Your task to perform on an android device: open app "PUBG MOBILE" (install if not already installed) and enter user name: "phenomenologically@gmail.com" and password: "artillery" Image 0: 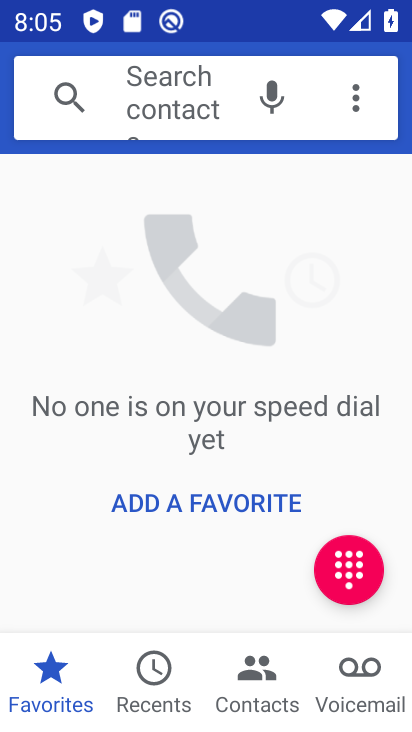
Step 0: press home button
Your task to perform on an android device: open app "PUBG MOBILE" (install if not already installed) and enter user name: "phenomenologically@gmail.com" and password: "artillery" Image 1: 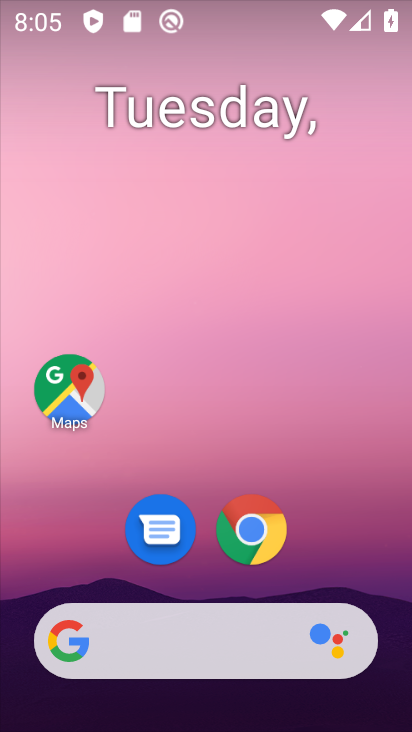
Step 1: drag from (181, 384) to (191, 18)
Your task to perform on an android device: open app "PUBG MOBILE" (install if not already installed) and enter user name: "phenomenologically@gmail.com" and password: "artillery" Image 2: 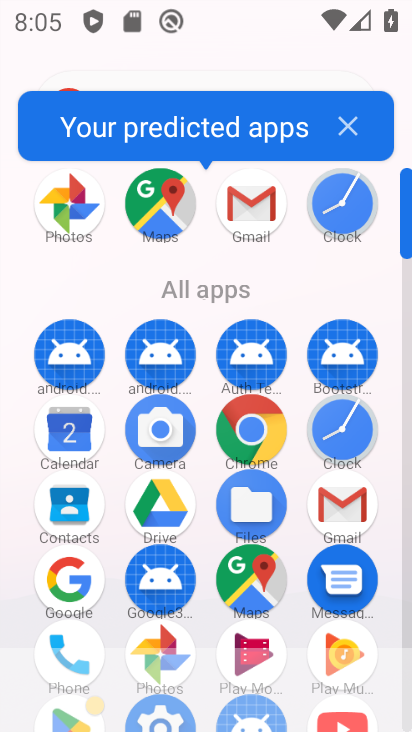
Step 2: drag from (114, 523) to (129, 288)
Your task to perform on an android device: open app "PUBG MOBILE" (install if not already installed) and enter user name: "phenomenologically@gmail.com" and password: "artillery" Image 3: 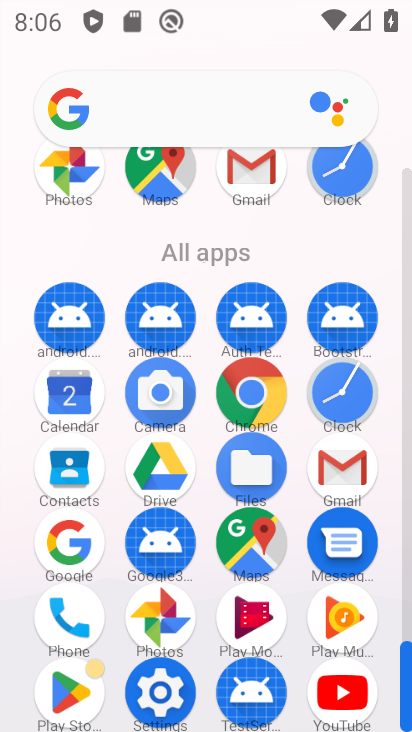
Step 3: click (73, 671)
Your task to perform on an android device: open app "PUBG MOBILE" (install if not already installed) and enter user name: "phenomenologically@gmail.com" and password: "artillery" Image 4: 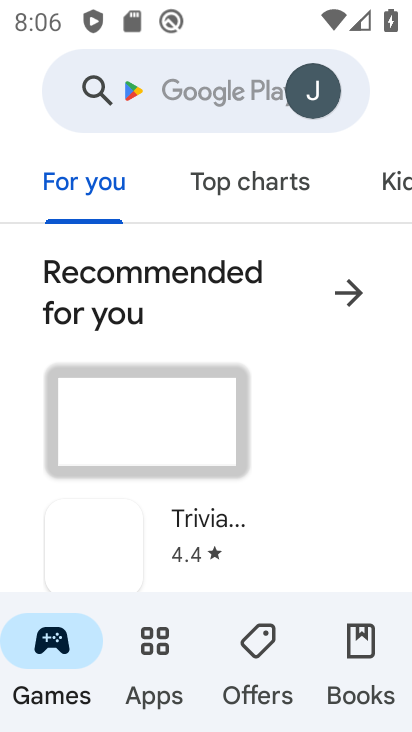
Step 4: click (85, 86)
Your task to perform on an android device: open app "PUBG MOBILE" (install if not already installed) and enter user name: "phenomenologically@gmail.com" and password: "artillery" Image 5: 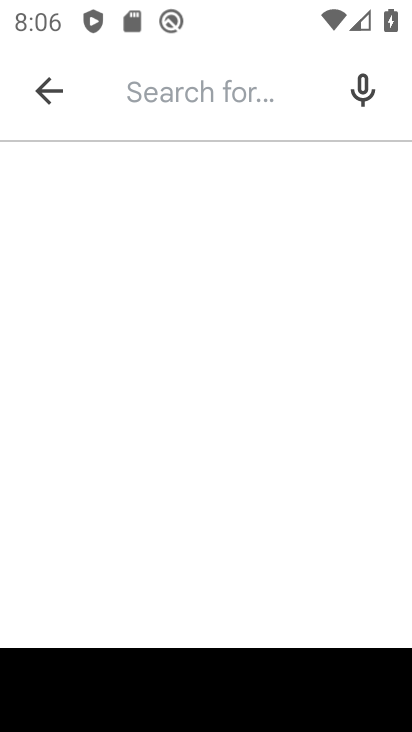
Step 5: type "pubg"
Your task to perform on an android device: open app "PUBG MOBILE" (install if not already installed) and enter user name: "phenomenologically@gmail.com" and password: "artillery" Image 6: 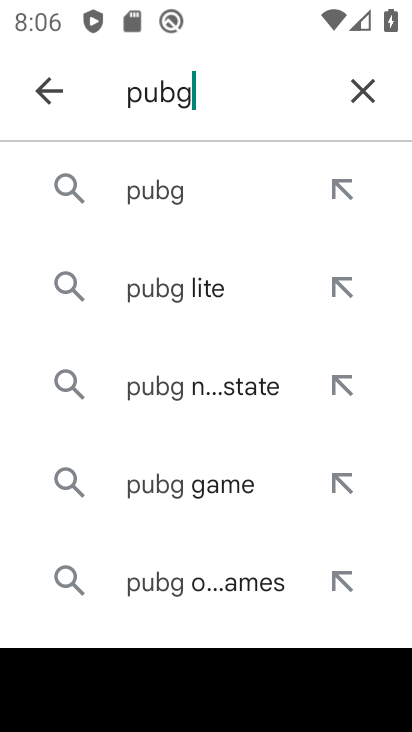
Step 6: click (187, 194)
Your task to perform on an android device: open app "PUBG MOBILE" (install if not already installed) and enter user name: "phenomenologically@gmail.com" and password: "artillery" Image 7: 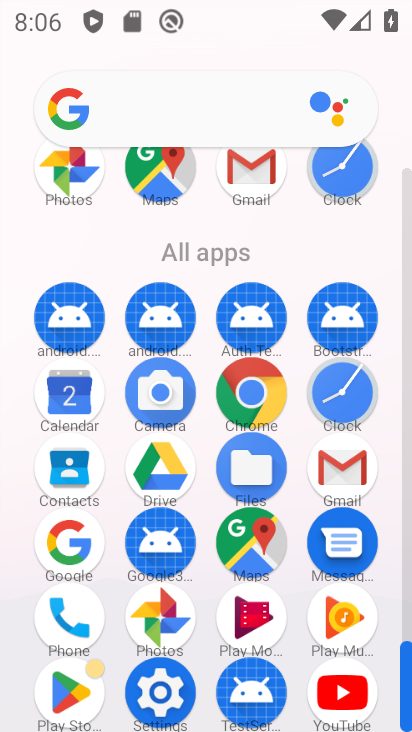
Step 7: task complete